Your task to perform on an android device: Open calendar and show me the third week of next month Image 0: 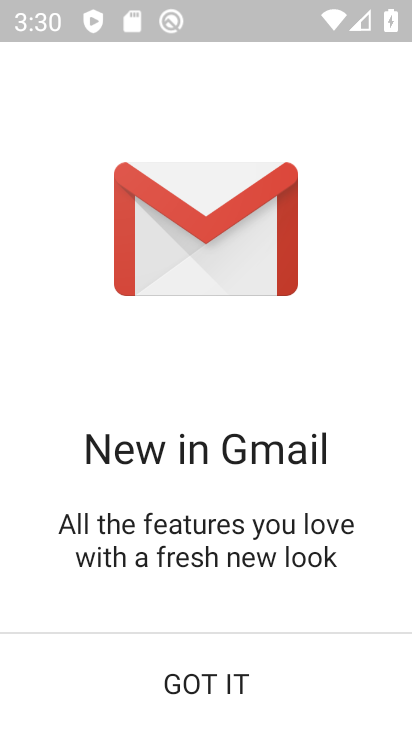
Step 0: press home button
Your task to perform on an android device: Open calendar and show me the third week of next month Image 1: 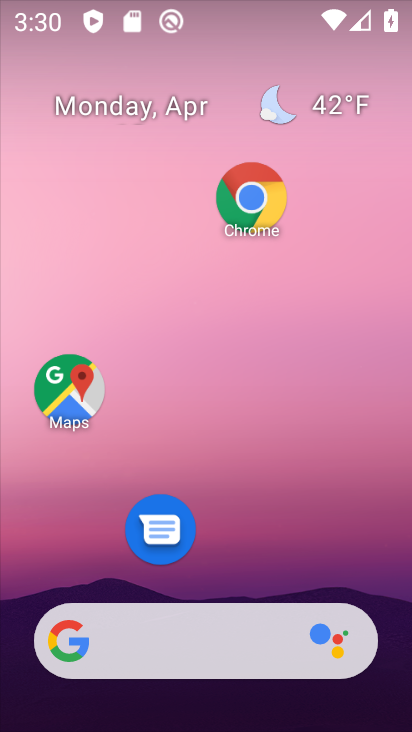
Step 1: drag from (226, 546) to (197, 213)
Your task to perform on an android device: Open calendar and show me the third week of next month Image 2: 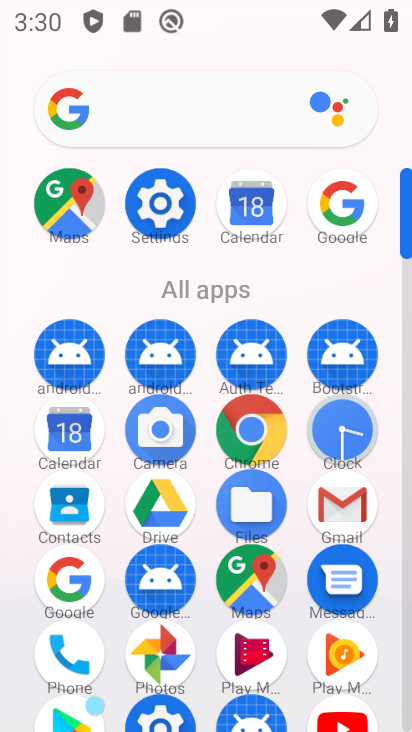
Step 2: drag from (96, 562) to (96, 280)
Your task to perform on an android device: Open calendar and show me the third week of next month Image 3: 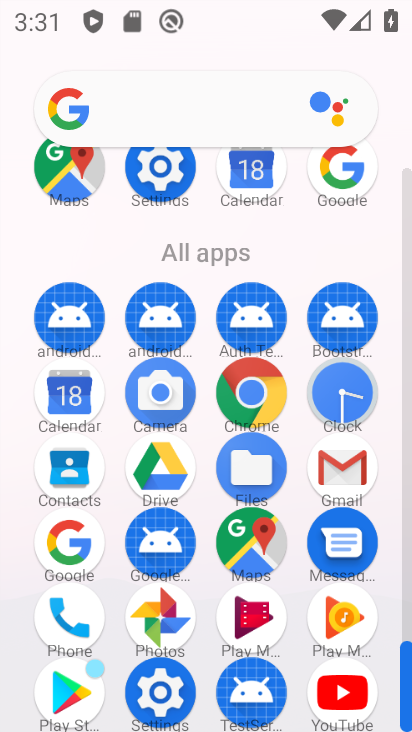
Step 3: click (232, 168)
Your task to perform on an android device: Open calendar and show me the third week of next month Image 4: 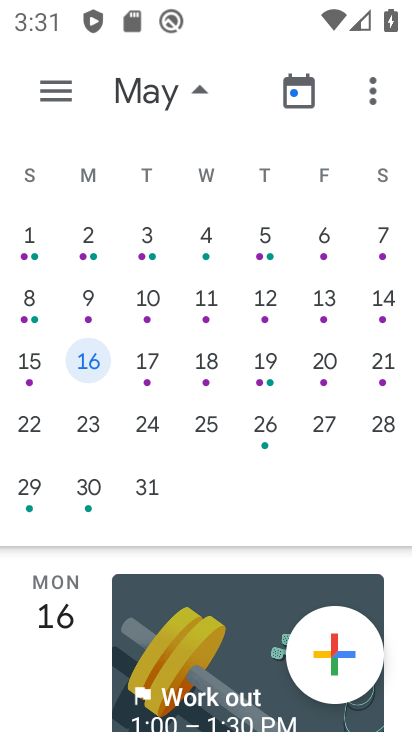
Step 4: click (136, 350)
Your task to perform on an android device: Open calendar and show me the third week of next month Image 5: 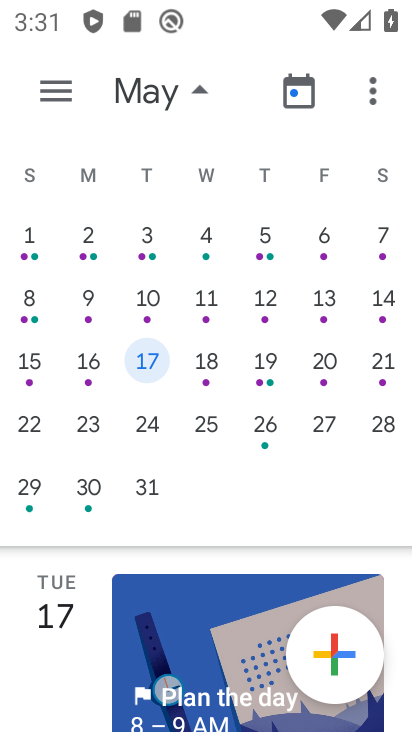
Step 5: task complete